Your task to perform on an android device: change notifications settings Image 0: 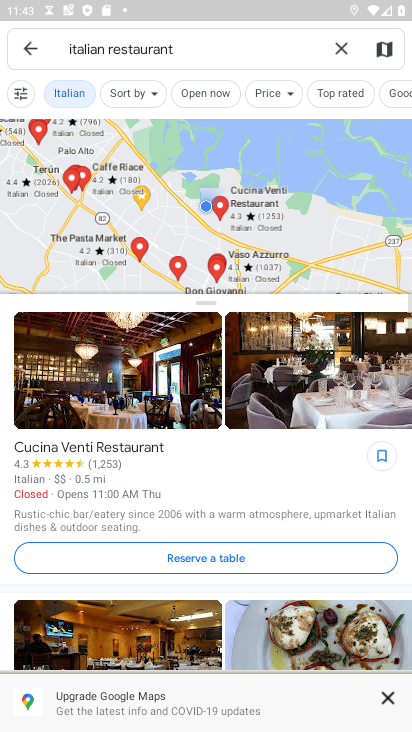
Step 0: press home button
Your task to perform on an android device: change notifications settings Image 1: 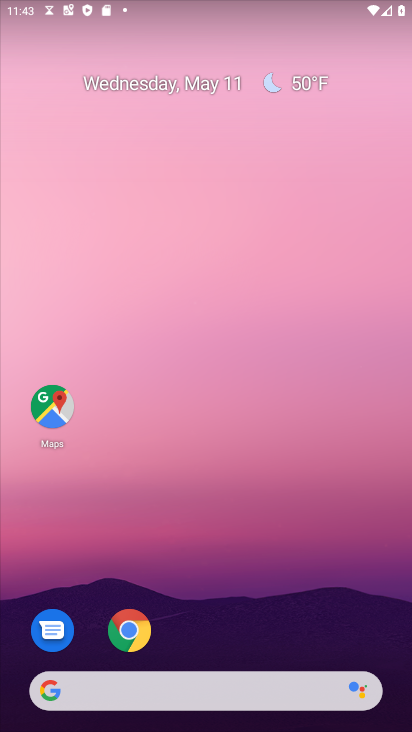
Step 1: drag from (208, 683) to (211, 92)
Your task to perform on an android device: change notifications settings Image 2: 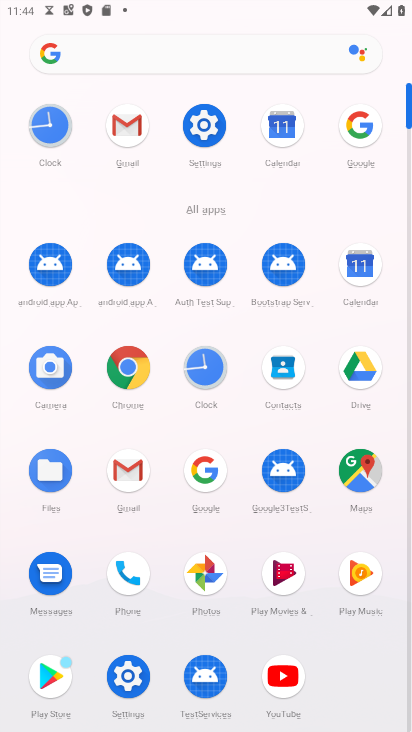
Step 2: click (205, 132)
Your task to perform on an android device: change notifications settings Image 3: 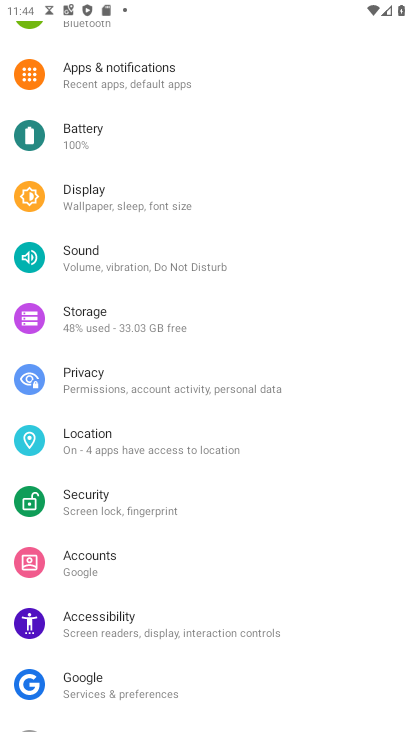
Step 3: click (105, 72)
Your task to perform on an android device: change notifications settings Image 4: 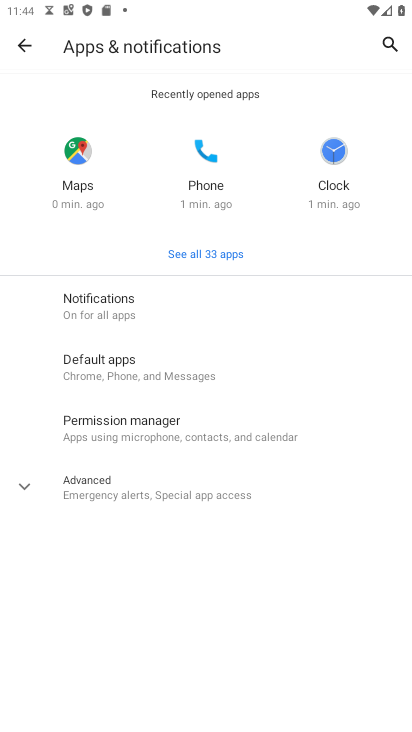
Step 4: click (97, 304)
Your task to perform on an android device: change notifications settings Image 5: 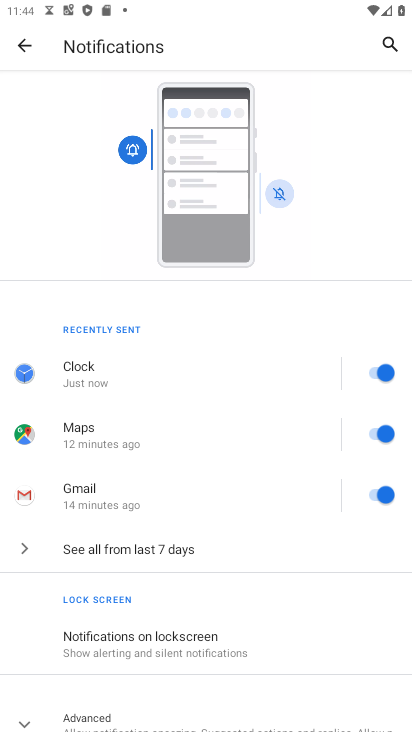
Step 5: drag from (216, 709) to (218, 389)
Your task to perform on an android device: change notifications settings Image 6: 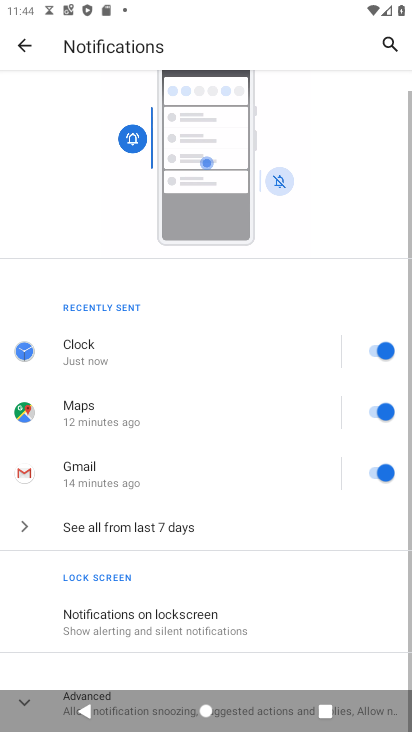
Step 6: drag from (227, 622) to (226, 366)
Your task to perform on an android device: change notifications settings Image 7: 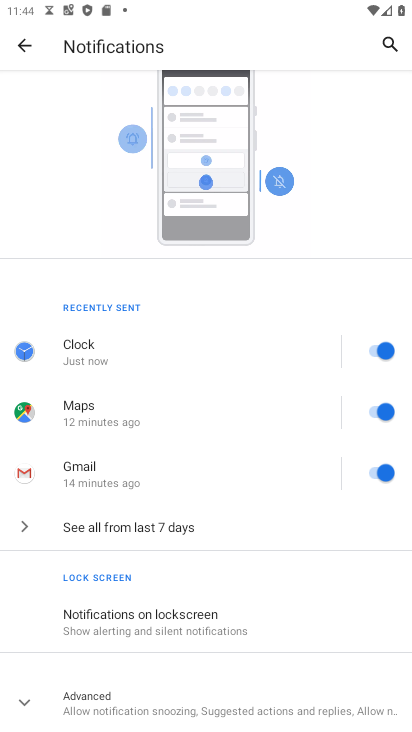
Step 7: click (136, 697)
Your task to perform on an android device: change notifications settings Image 8: 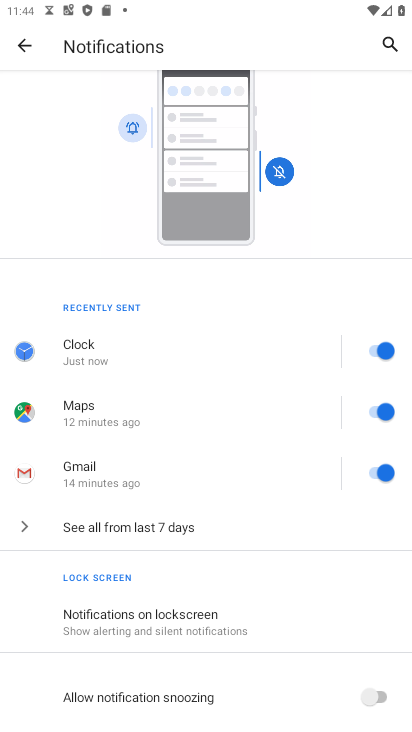
Step 8: click (387, 694)
Your task to perform on an android device: change notifications settings Image 9: 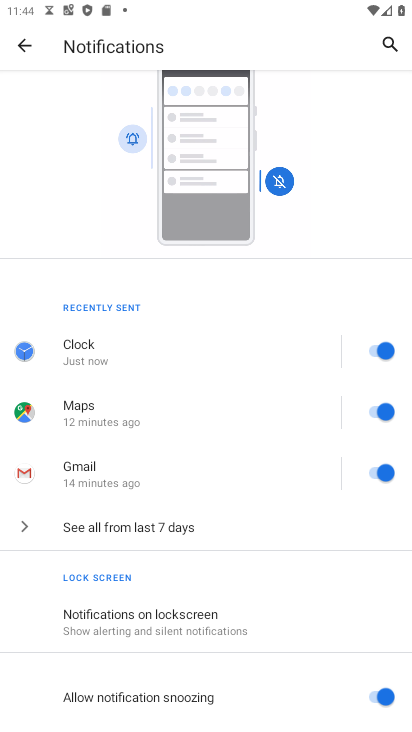
Step 9: task complete